Your task to perform on an android device: toggle wifi Image 0: 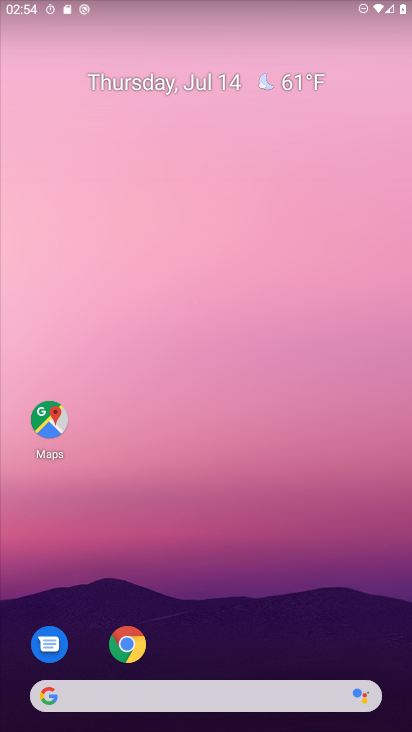
Step 0: drag from (238, 473) to (228, 25)
Your task to perform on an android device: toggle wifi Image 1: 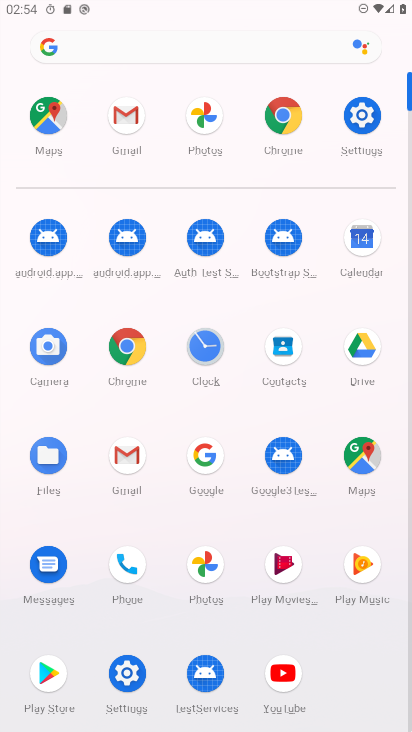
Step 1: click (374, 120)
Your task to perform on an android device: toggle wifi Image 2: 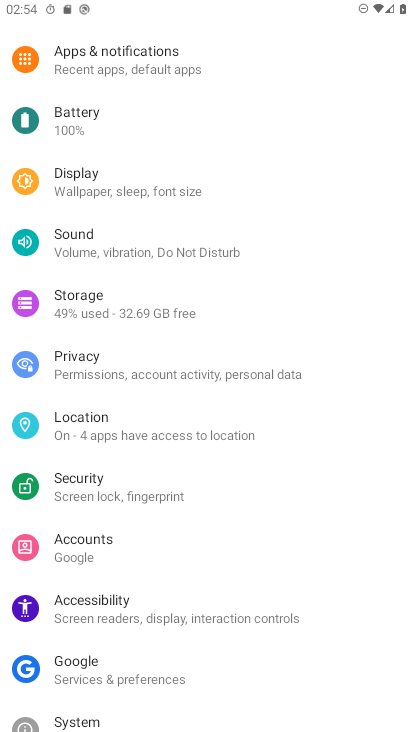
Step 2: drag from (210, 104) to (197, 536)
Your task to perform on an android device: toggle wifi Image 3: 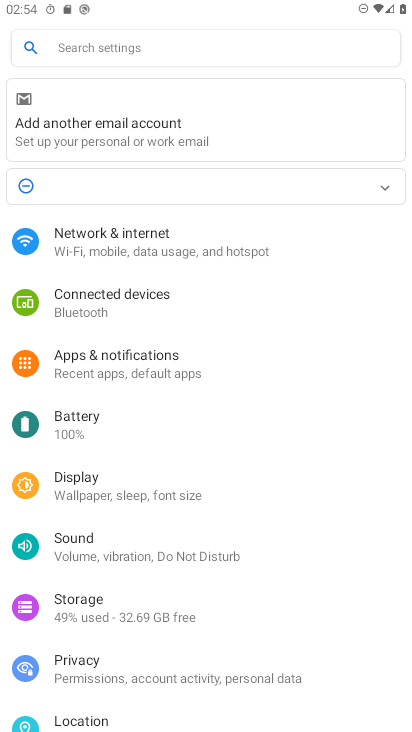
Step 3: click (140, 246)
Your task to perform on an android device: toggle wifi Image 4: 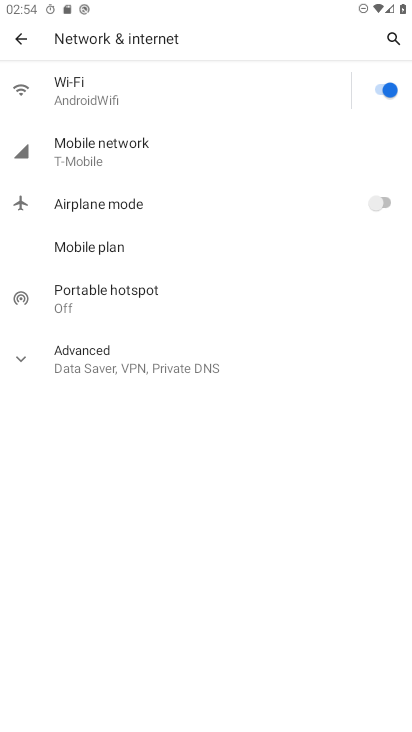
Step 4: click (384, 85)
Your task to perform on an android device: toggle wifi Image 5: 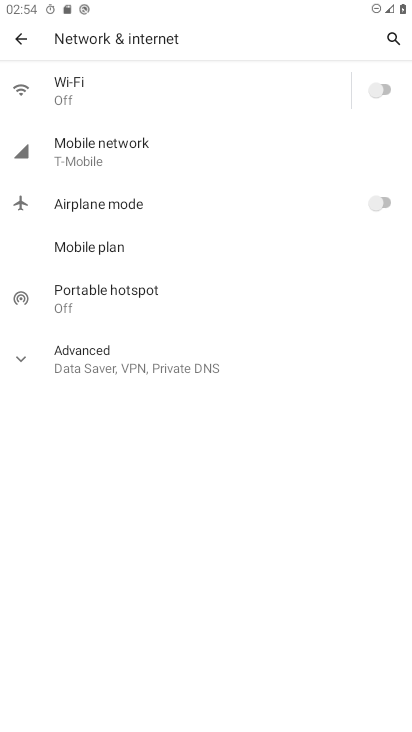
Step 5: task complete